Your task to perform on an android device: turn off notifications settings in the gmail app Image 0: 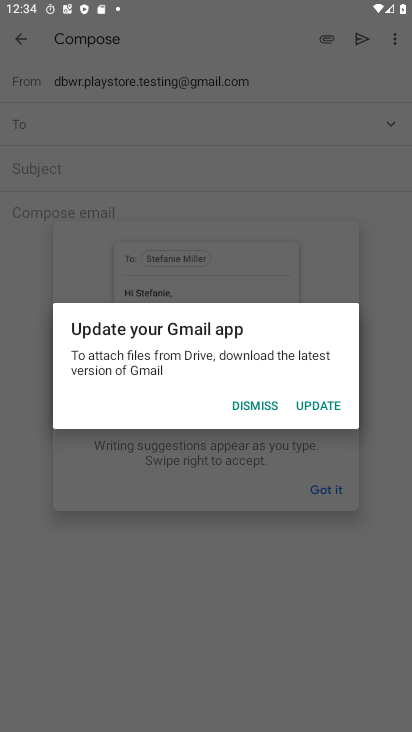
Step 0: press home button
Your task to perform on an android device: turn off notifications settings in the gmail app Image 1: 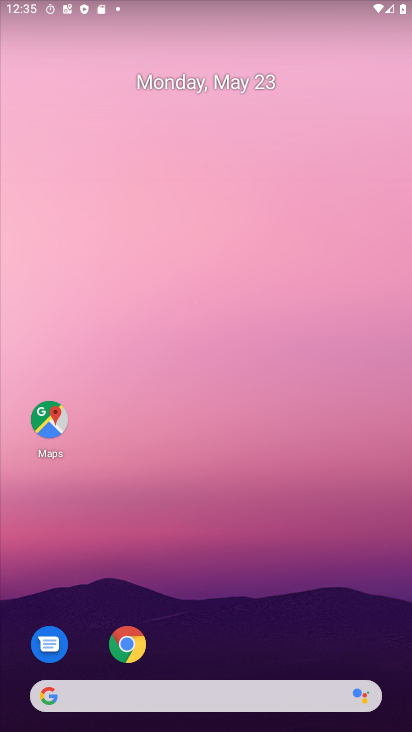
Step 1: drag from (251, 640) to (262, 271)
Your task to perform on an android device: turn off notifications settings in the gmail app Image 2: 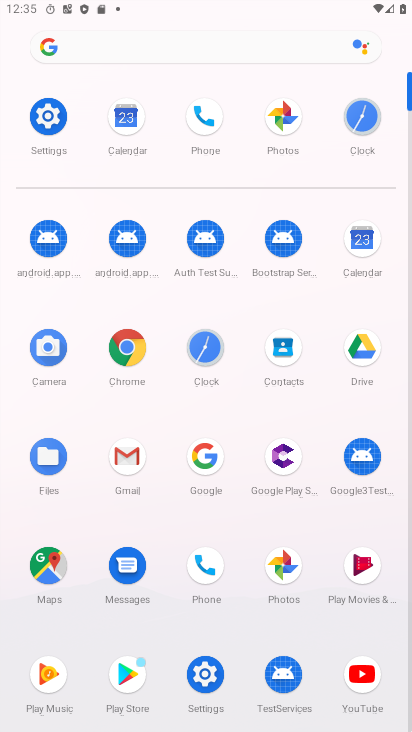
Step 2: click (56, 118)
Your task to perform on an android device: turn off notifications settings in the gmail app Image 3: 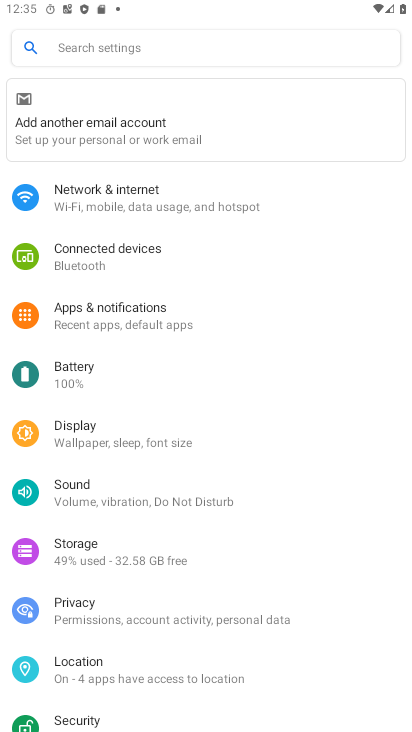
Step 3: click (126, 314)
Your task to perform on an android device: turn off notifications settings in the gmail app Image 4: 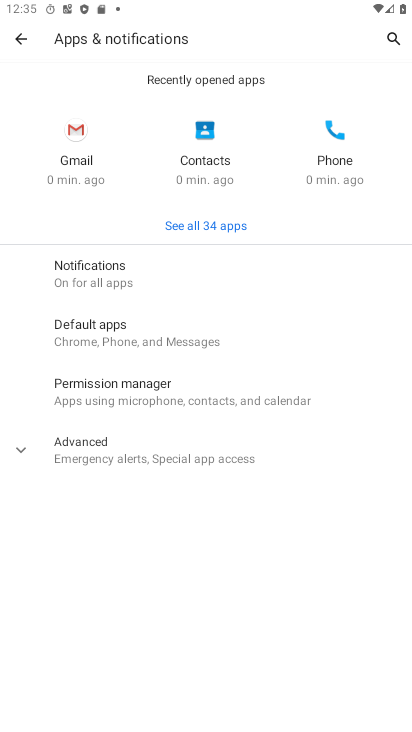
Step 4: click (76, 127)
Your task to perform on an android device: turn off notifications settings in the gmail app Image 5: 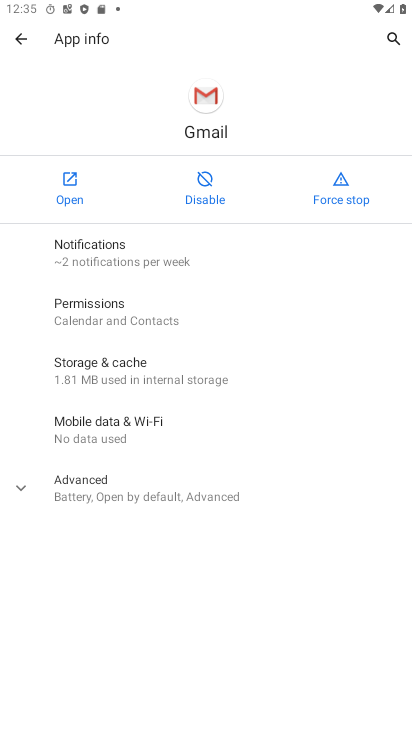
Step 5: click (106, 250)
Your task to perform on an android device: turn off notifications settings in the gmail app Image 6: 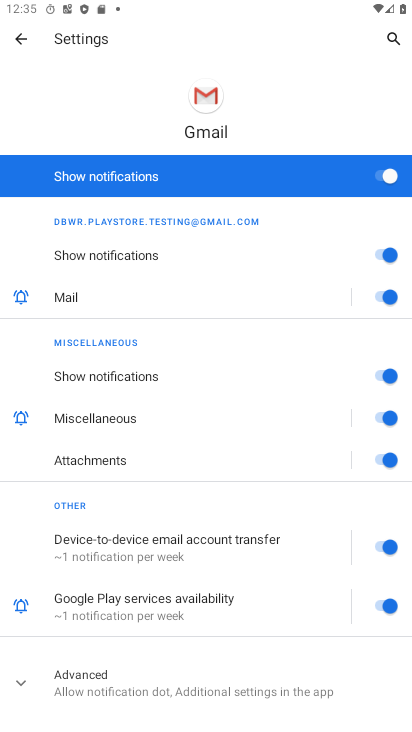
Step 6: click (381, 182)
Your task to perform on an android device: turn off notifications settings in the gmail app Image 7: 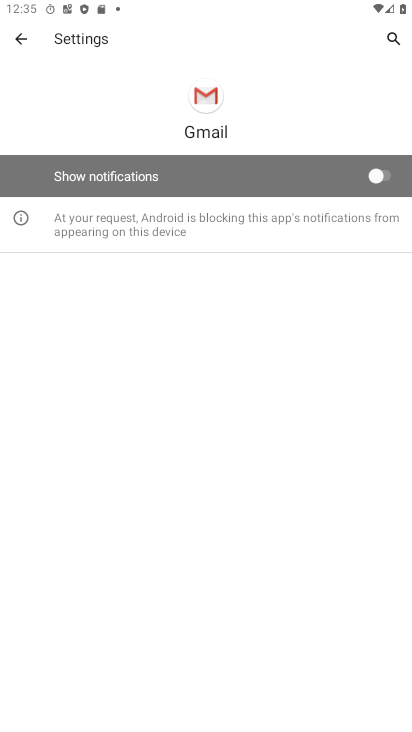
Step 7: task complete